Your task to perform on an android device: show emergency info Image 0: 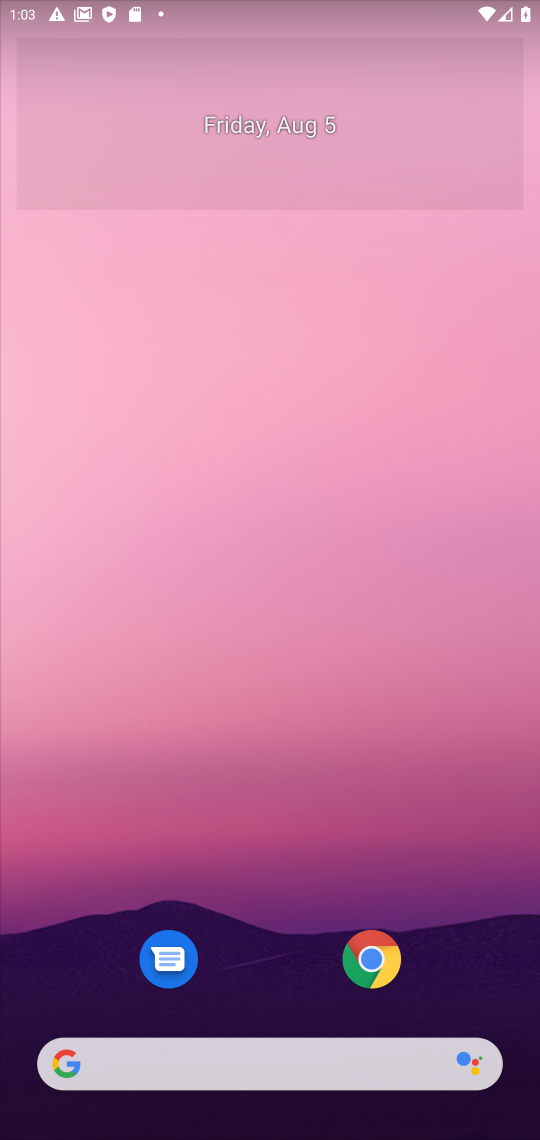
Step 0: drag from (270, 561) to (317, 353)
Your task to perform on an android device: show emergency info Image 1: 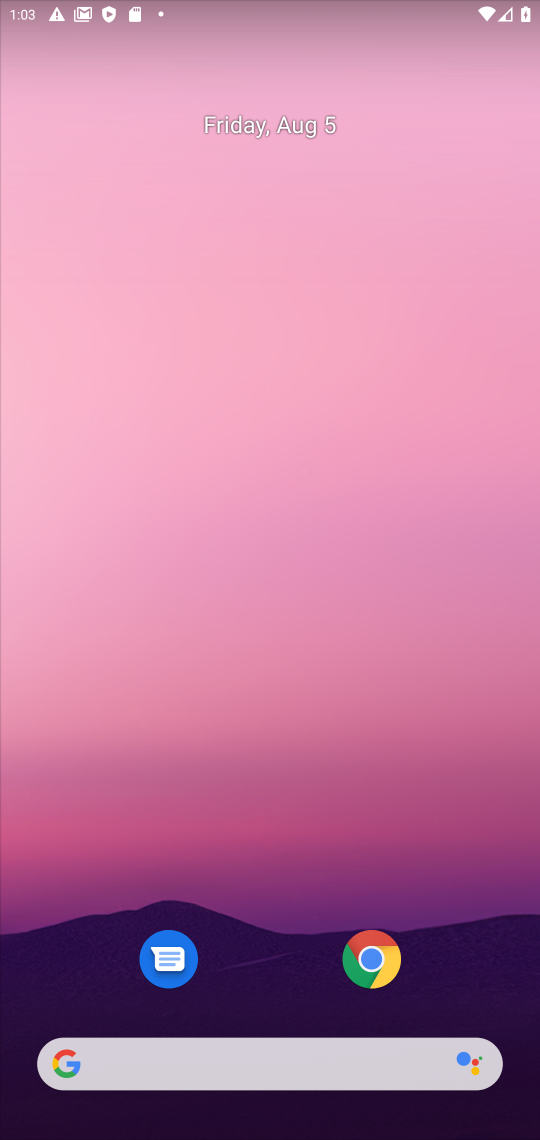
Step 1: drag from (315, 800) to (349, 439)
Your task to perform on an android device: show emergency info Image 2: 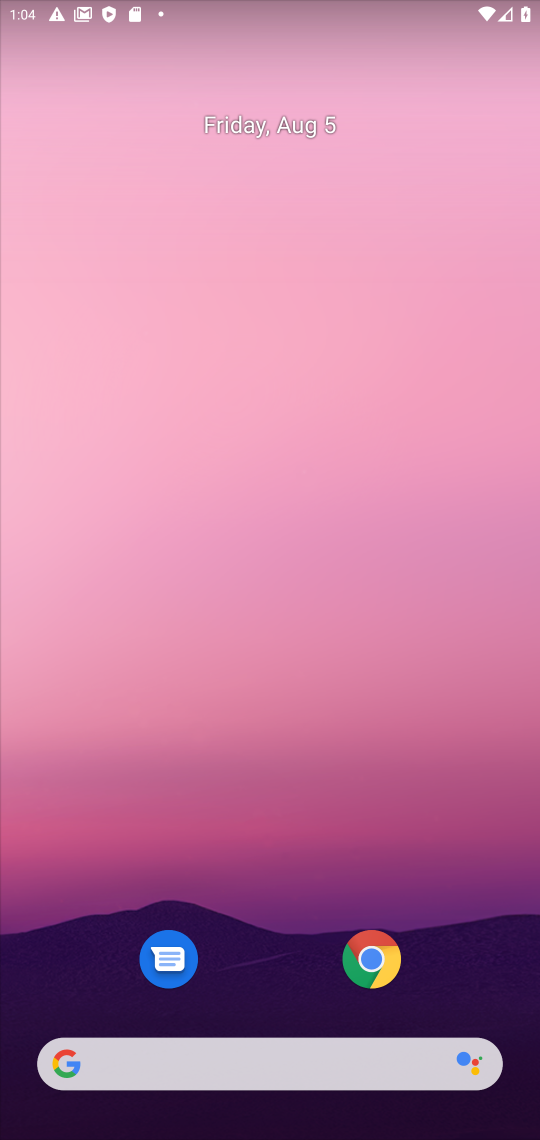
Step 2: drag from (130, 271) to (136, 1)
Your task to perform on an android device: show emergency info Image 3: 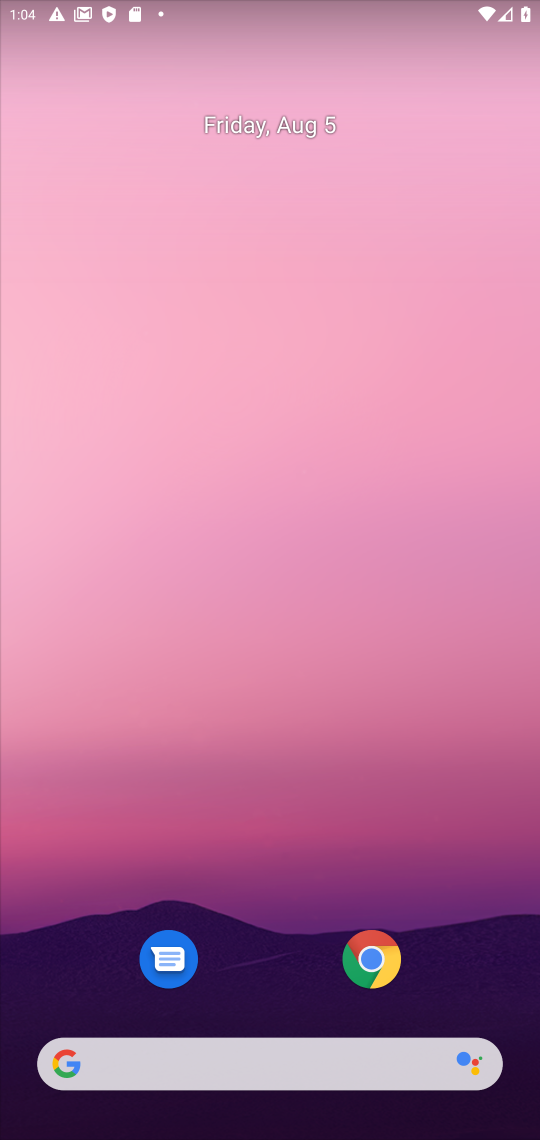
Step 3: drag from (249, 707) to (510, 1)
Your task to perform on an android device: show emergency info Image 4: 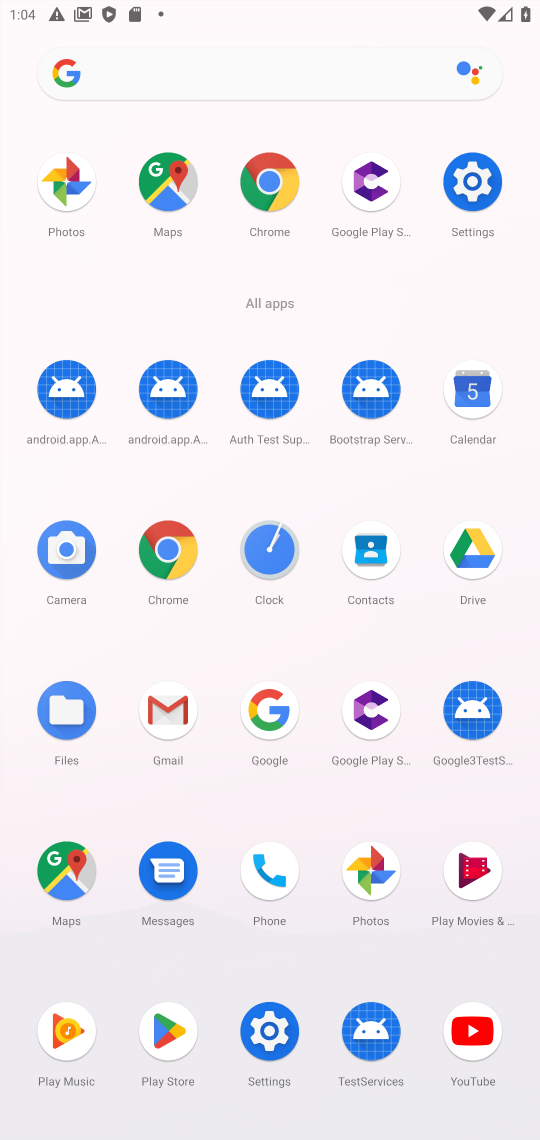
Step 4: click (469, 204)
Your task to perform on an android device: show emergency info Image 5: 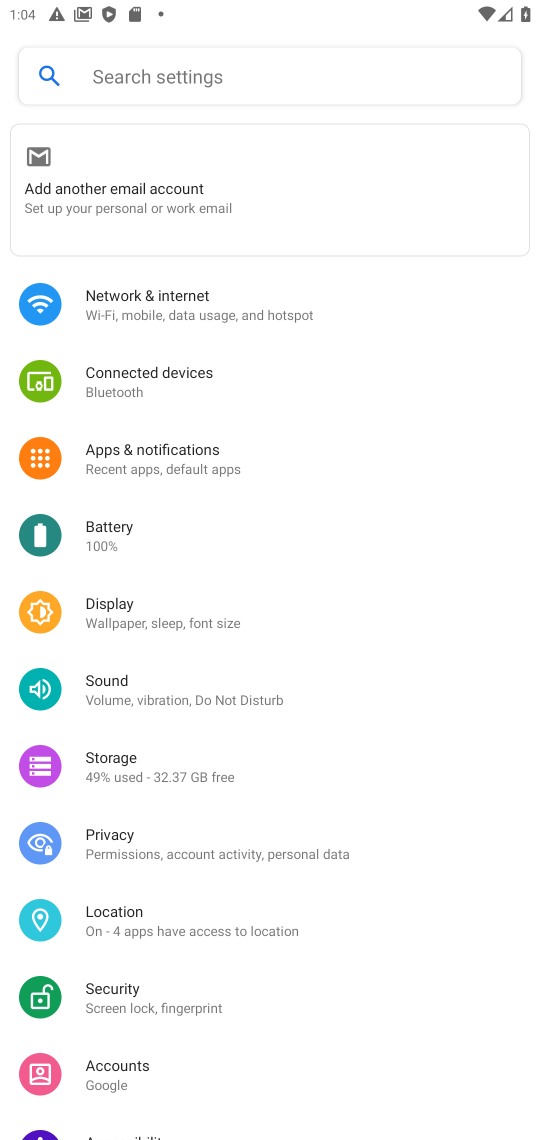
Step 5: drag from (229, 848) to (236, 121)
Your task to perform on an android device: show emergency info Image 6: 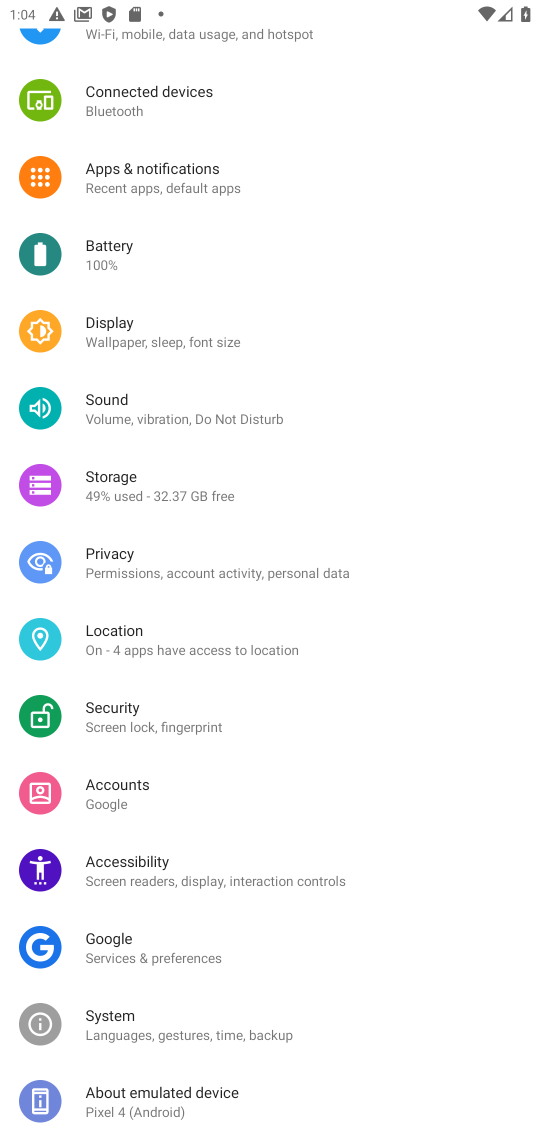
Step 6: click (270, 1088)
Your task to perform on an android device: show emergency info Image 7: 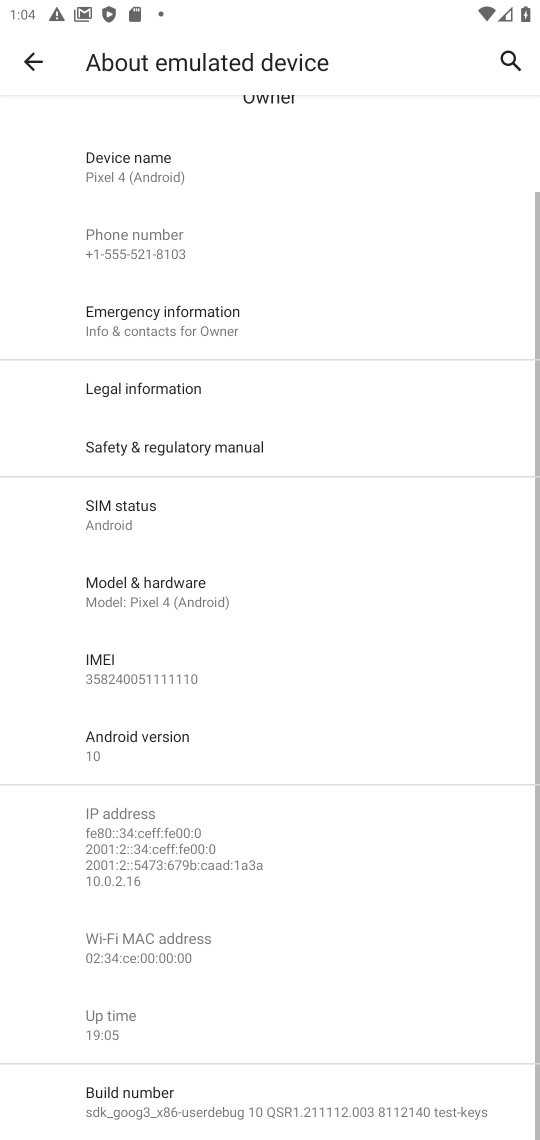
Step 7: click (246, 331)
Your task to perform on an android device: show emergency info Image 8: 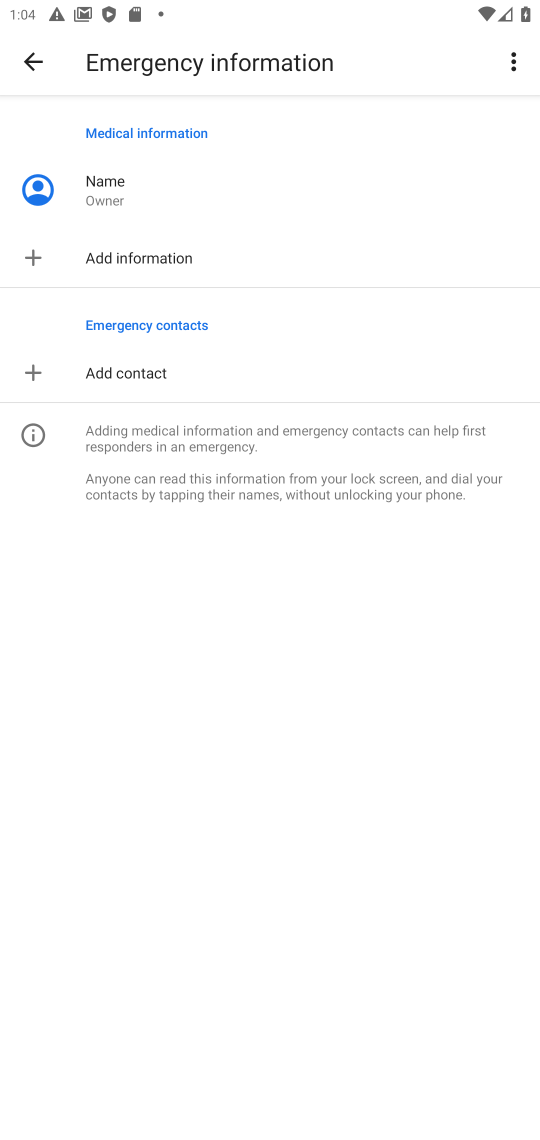
Step 8: task complete